Your task to perform on an android device: Open accessibility settings Image 0: 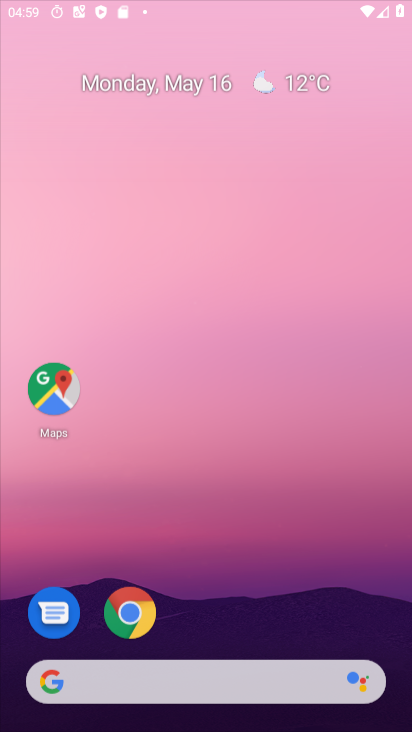
Step 0: drag from (271, 690) to (109, 264)
Your task to perform on an android device: Open accessibility settings Image 1: 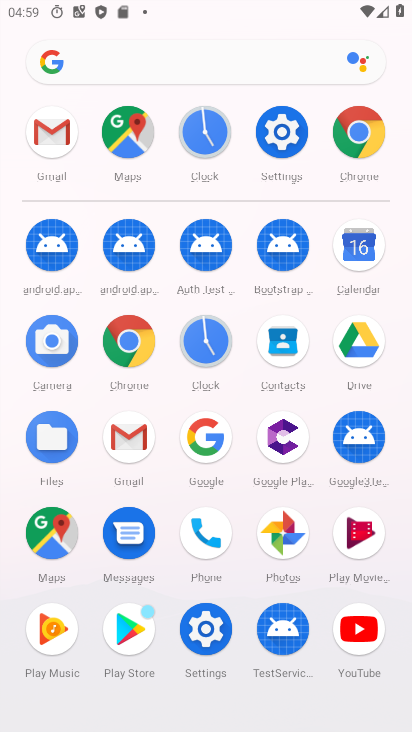
Step 1: click (264, 137)
Your task to perform on an android device: Open accessibility settings Image 2: 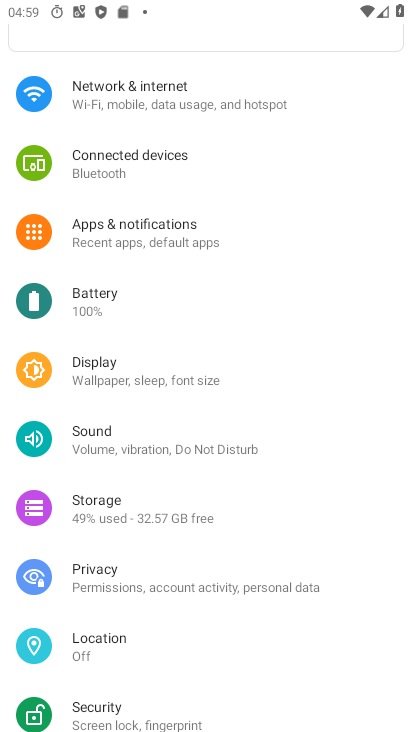
Step 2: drag from (109, 409) to (97, 79)
Your task to perform on an android device: Open accessibility settings Image 3: 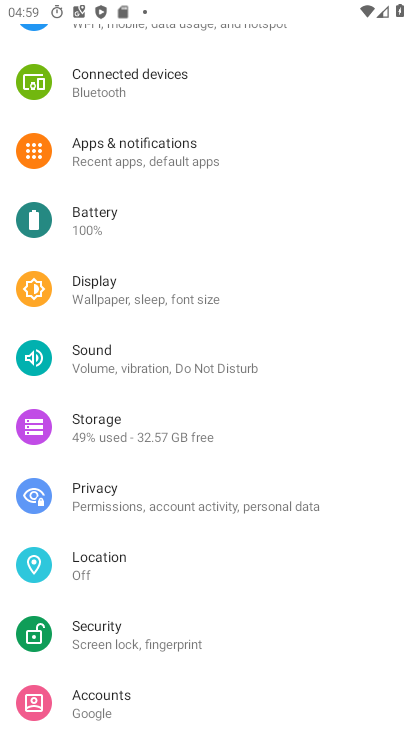
Step 3: drag from (112, 406) to (170, 100)
Your task to perform on an android device: Open accessibility settings Image 4: 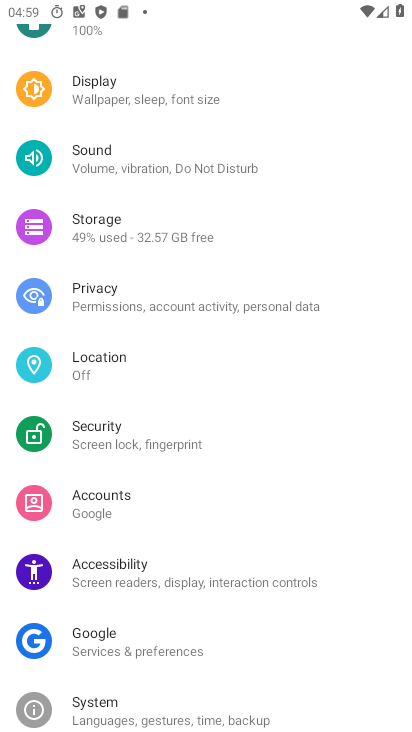
Step 4: drag from (214, 427) to (193, 16)
Your task to perform on an android device: Open accessibility settings Image 5: 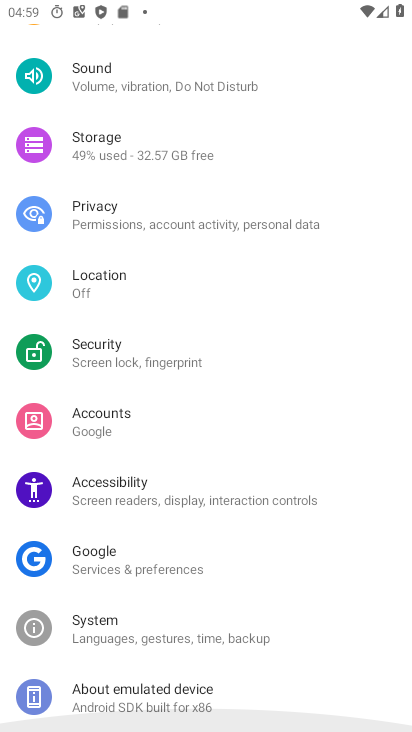
Step 5: drag from (194, 422) to (137, 77)
Your task to perform on an android device: Open accessibility settings Image 6: 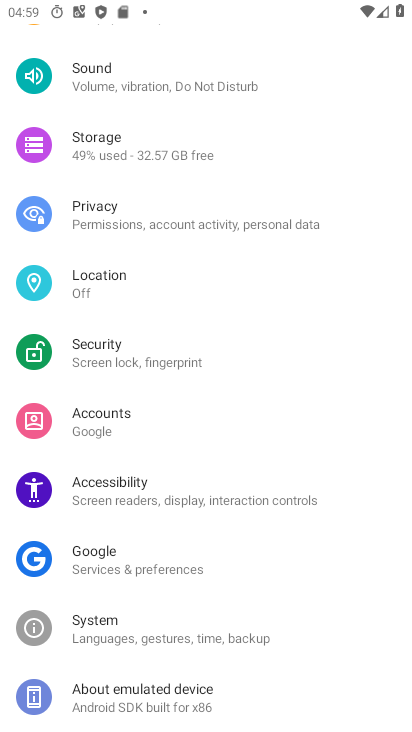
Step 6: click (104, 488)
Your task to perform on an android device: Open accessibility settings Image 7: 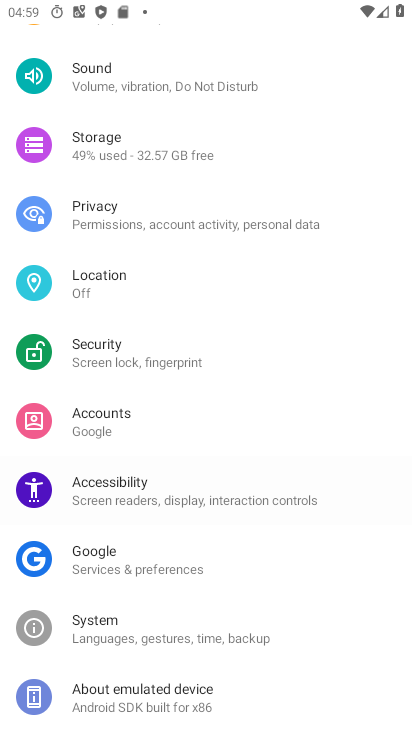
Step 7: click (101, 484)
Your task to perform on an android device: Open accessibility settings Image 8: 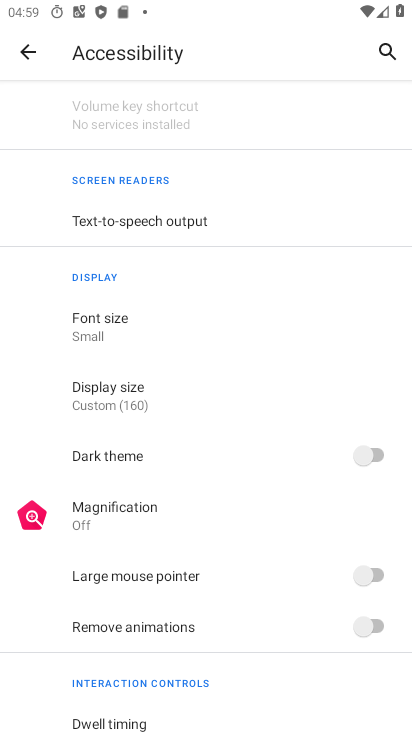
Step 8: task complete